Your task to perform on an android device: open a bookmark in the chrome app Image 0: 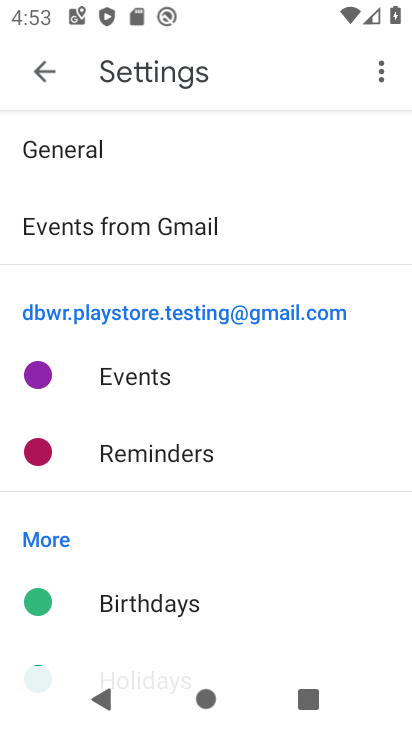
Step 0: press home button
Your task to perform on an android device: open a bookmark in the chrome app Image 1: 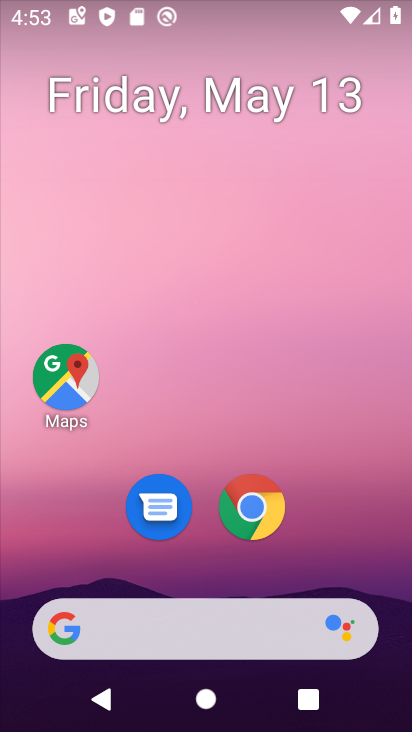
Step 1: click (263, 512)
Your task to perform on an android device: open a bookmark in the chrome app Image 2: 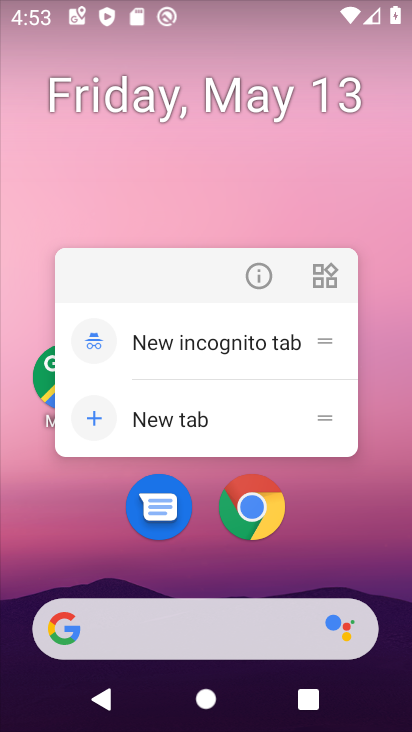
Step 2: click (264, 510)
Your task to perform on an android device: open a bookmark in the chrome app Image 3: 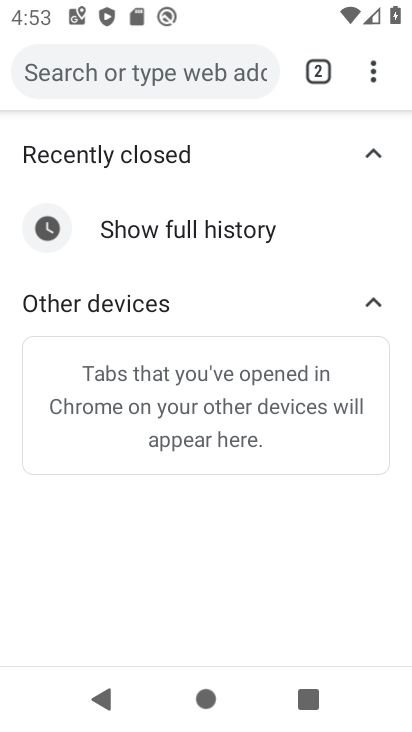
Step 3: click (373, 79)
Your task to perform on an android device: open a bookmark in the chrome app Image 4: 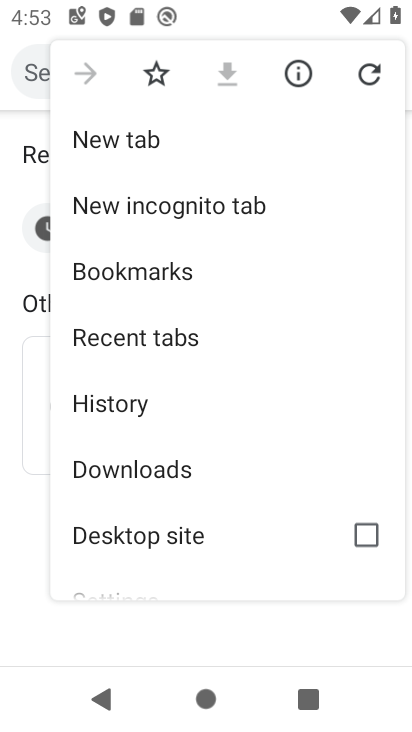
Step 4: click (161, 257)
Your task to perform on an android device: open a bookmark in the chrome app Image 5: 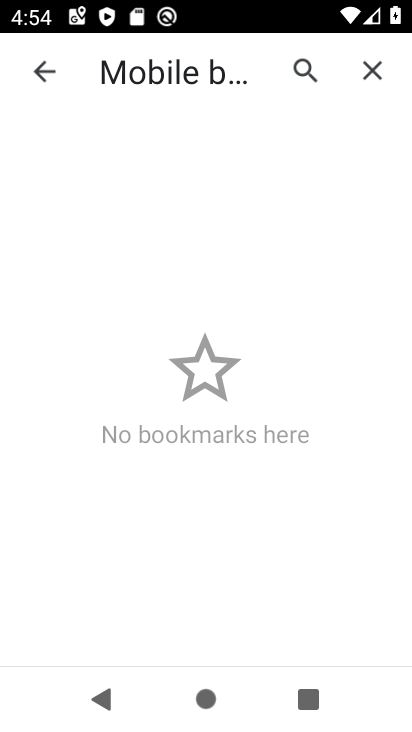
Step 5: task complete